Your task to perform on an android device: turn off location history Image 0: 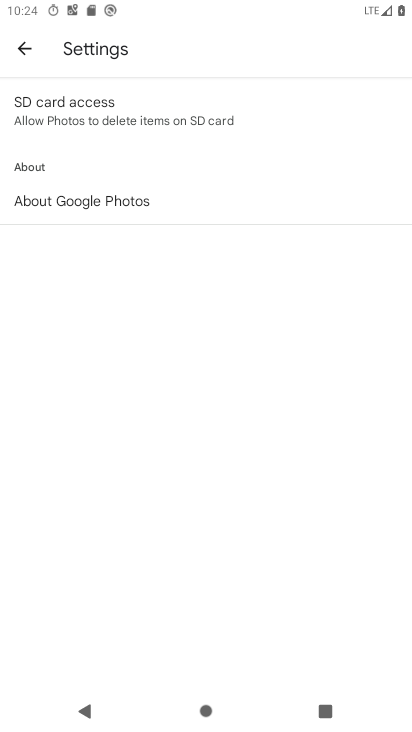
Step 0: press home button
Your task to perform on an android device: turn off location history Image 1: 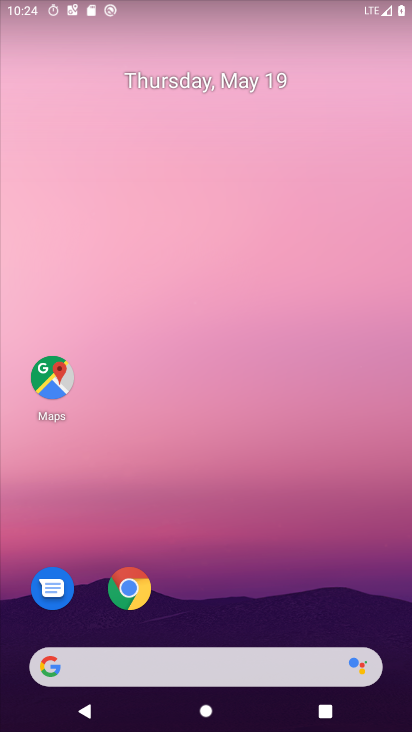
Step 1: click (58, 385)
Your task to perform on an android device: turn off location history Image 2: 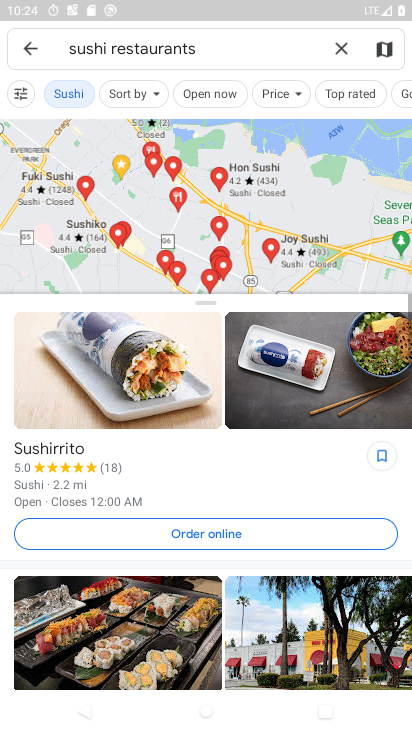
Step 2: click (31, 48)
Your task to perform on an android device: turn off location history Image 3: 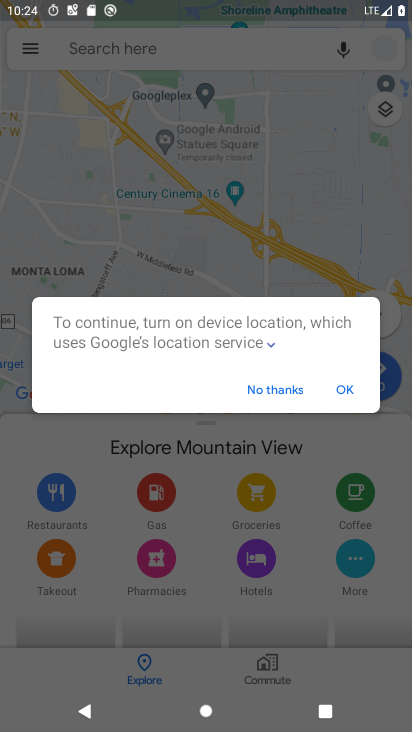
Step 3: click (343, 391)
Your task to perform on an android device: turn off location history Image 4: 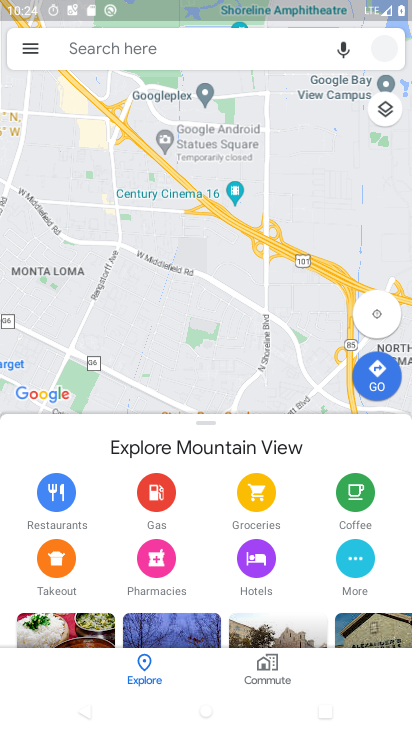
Step 4: click (29, 52)
Your task to perform on an android device: turn off location history Image 5: 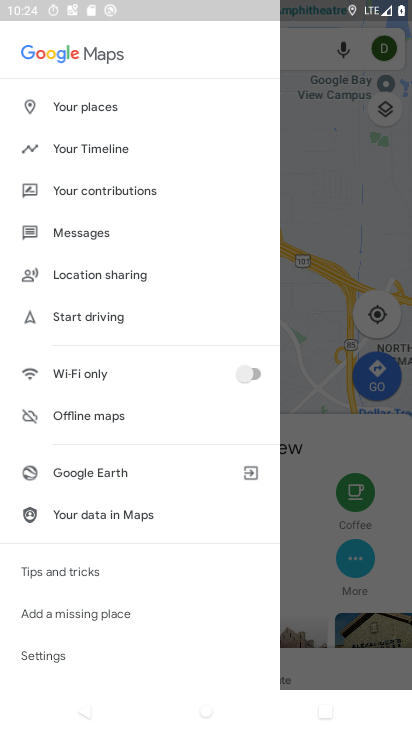
Step 5: click (114, 156)
Your task to perform on an android device: turn off location history Image 6: 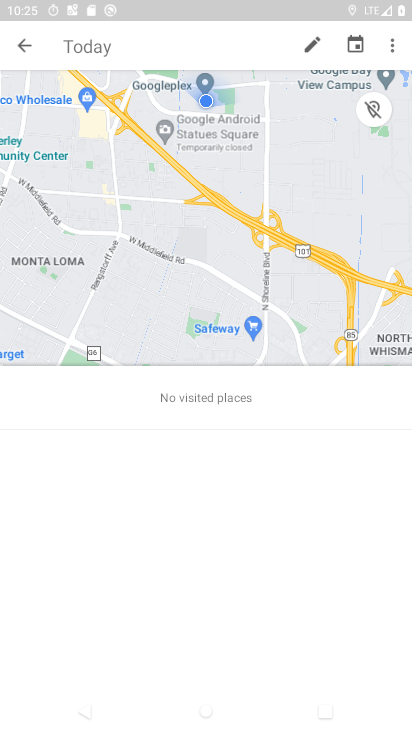
Step 6: click (395, 46)
Your task to perform on an android device: turn off location history Image 7: 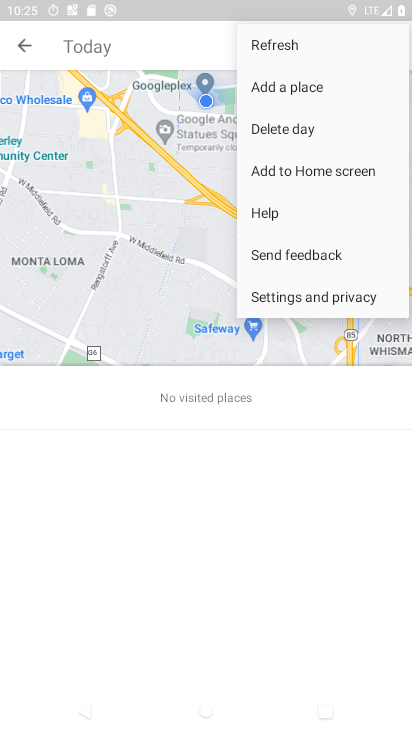
Step 7: click (289, 292)
Your task to perform on an android device: turn off location history Image 8: 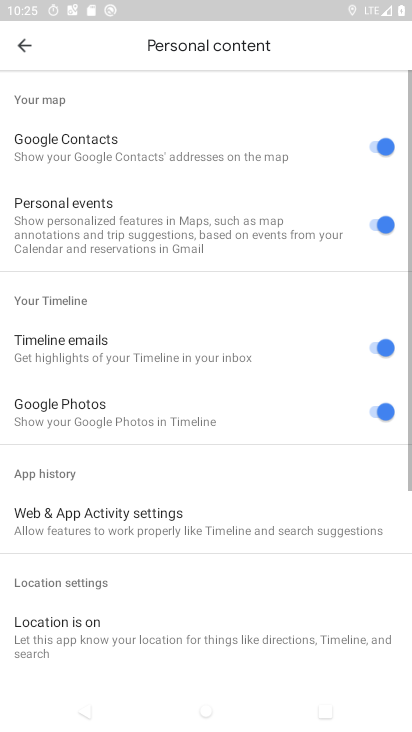
Step 8: drag from (147, 574) to (263, 291)
Your task to perform on an android device: turn off location history Image 9: 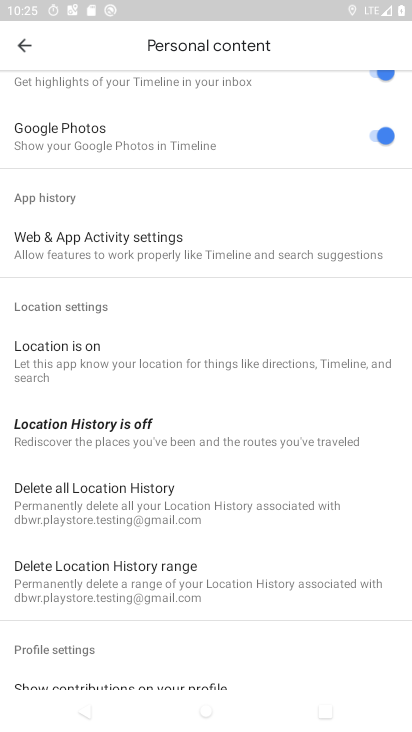
Step 9: click (144, 433)
Your task to perform on an android device: turn off location history Image 10: 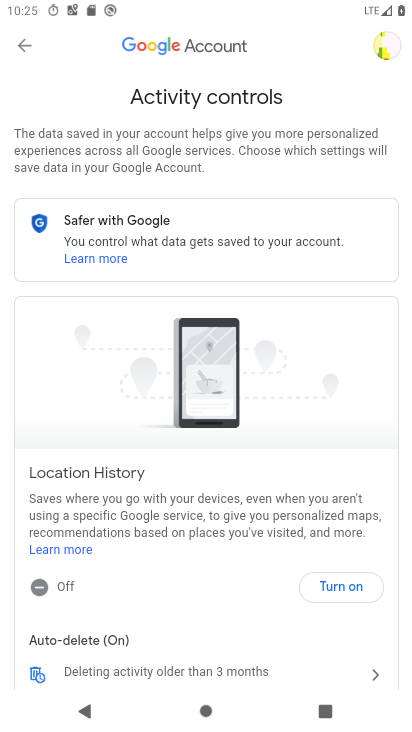
Step 10: task complete